Your task to perform on an android device: What's on the menu at Chipotle? Image 0: 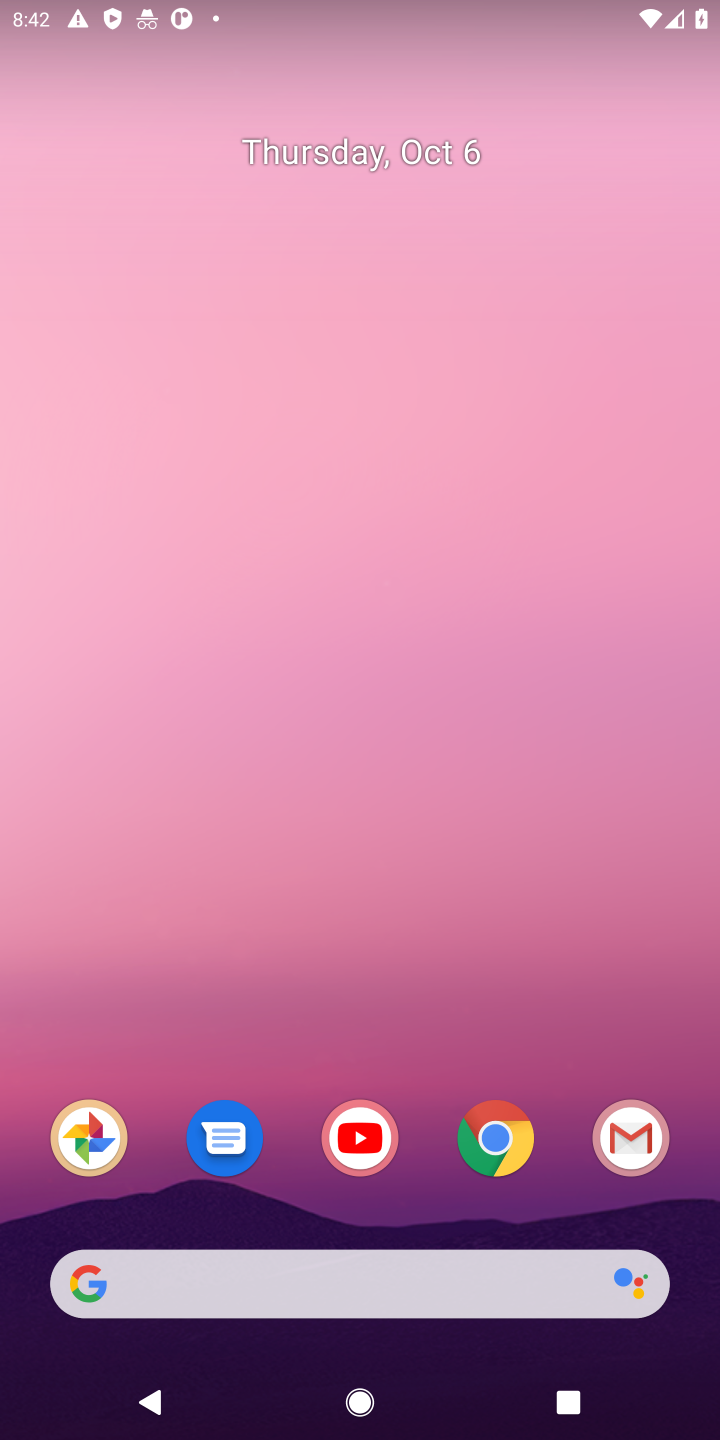
Step 0: click (489, 1136)
Your task to perform on an android device: What's on the menu at Chipotle? Image 1: 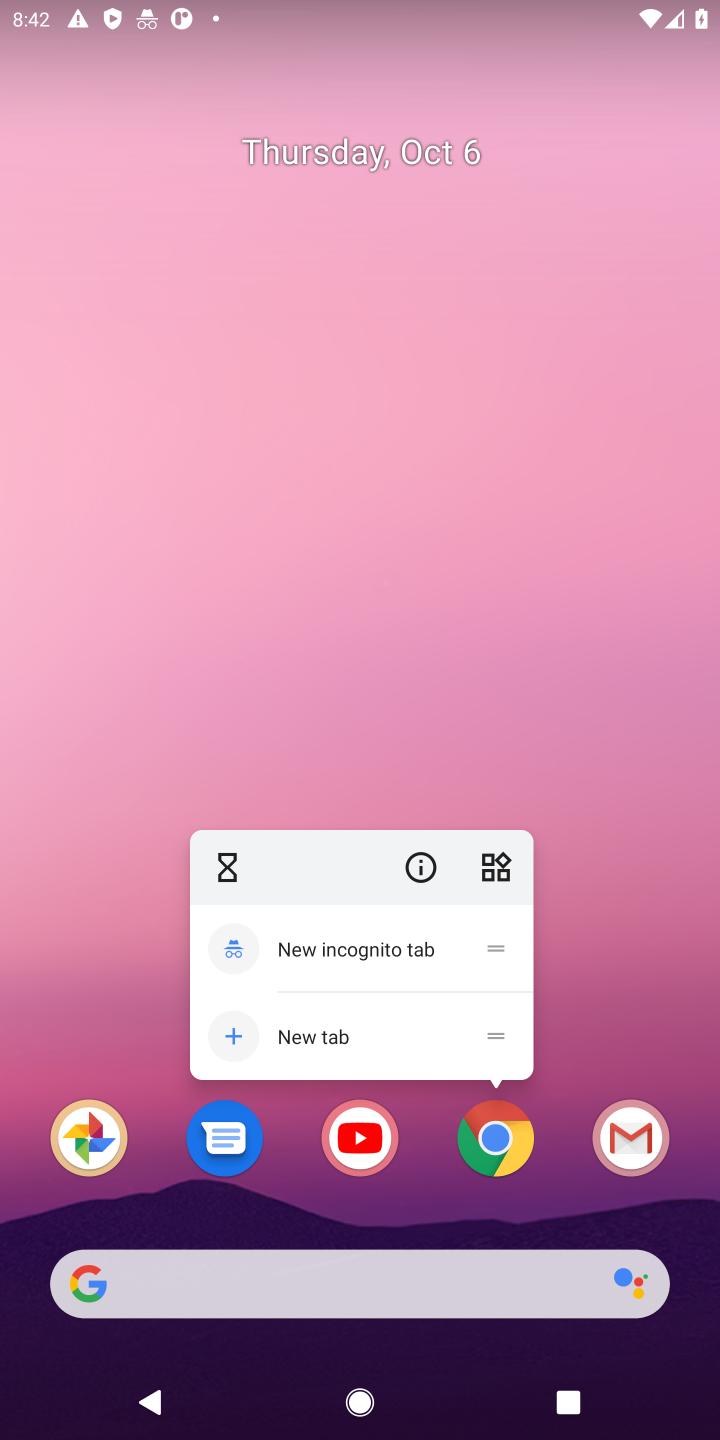
Step 1: click (489, 1137)
Your task to perform on an android device: What's on the menu at Chipotle? Image 2: 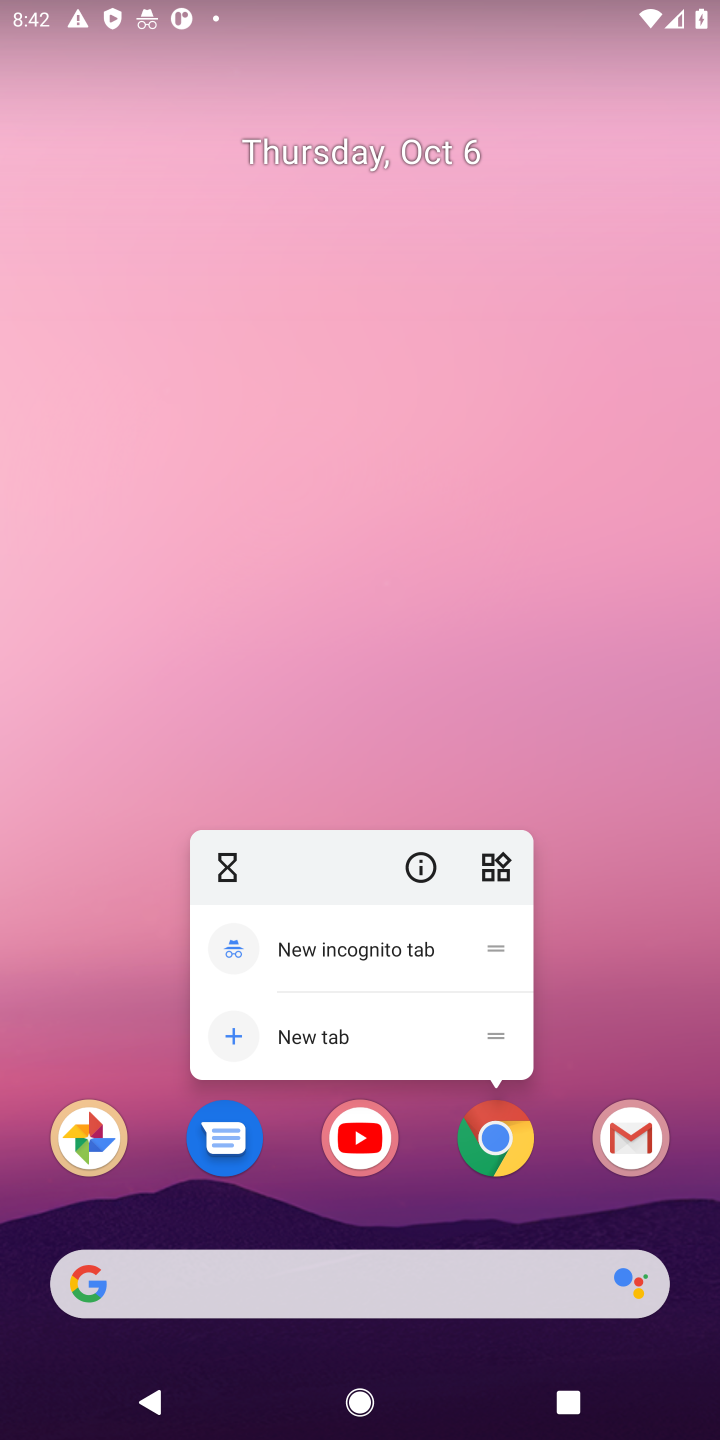
Step 2: click (502, 1124)
Your task to perform on an android device: What's on the menu at Chipotle? Image 3: 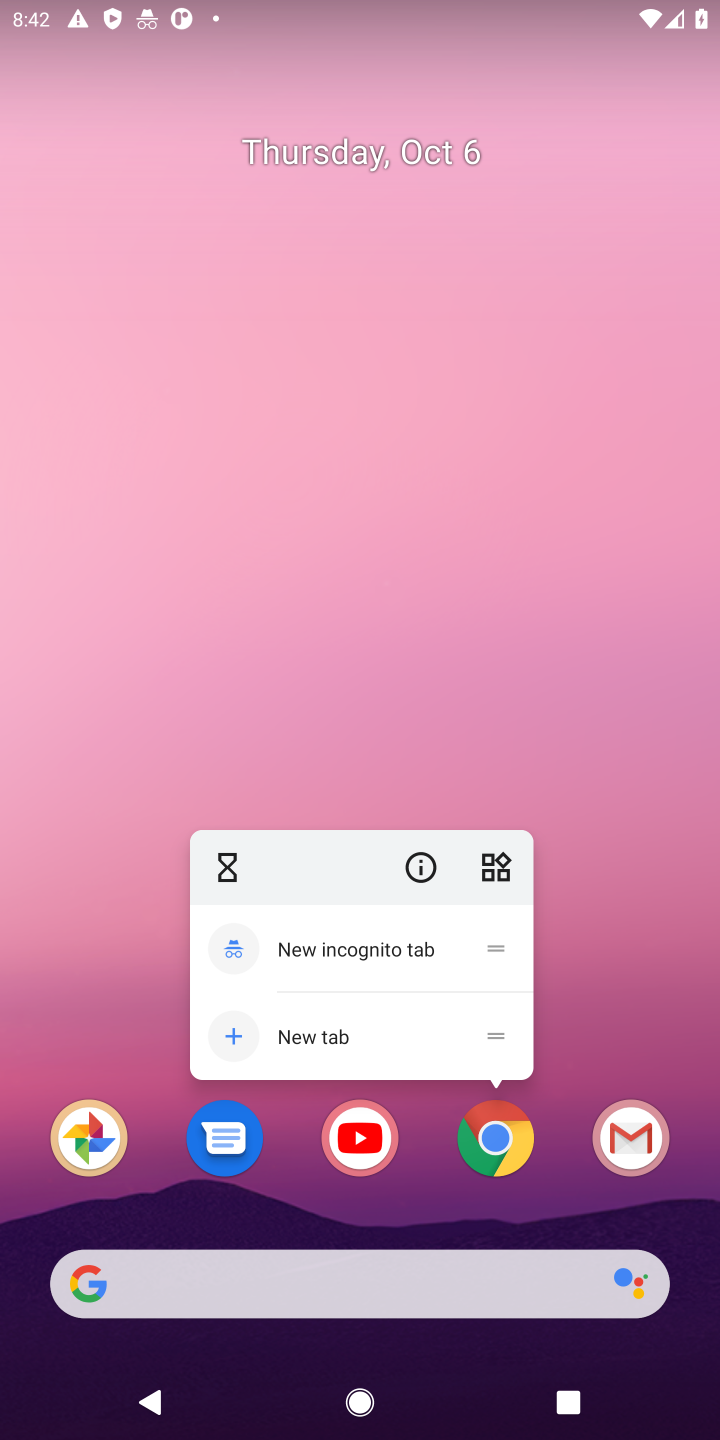
Step 3: click (502, 1124)
Your task to perform on an android device: What's on the menu at Chipotle? Image 4: 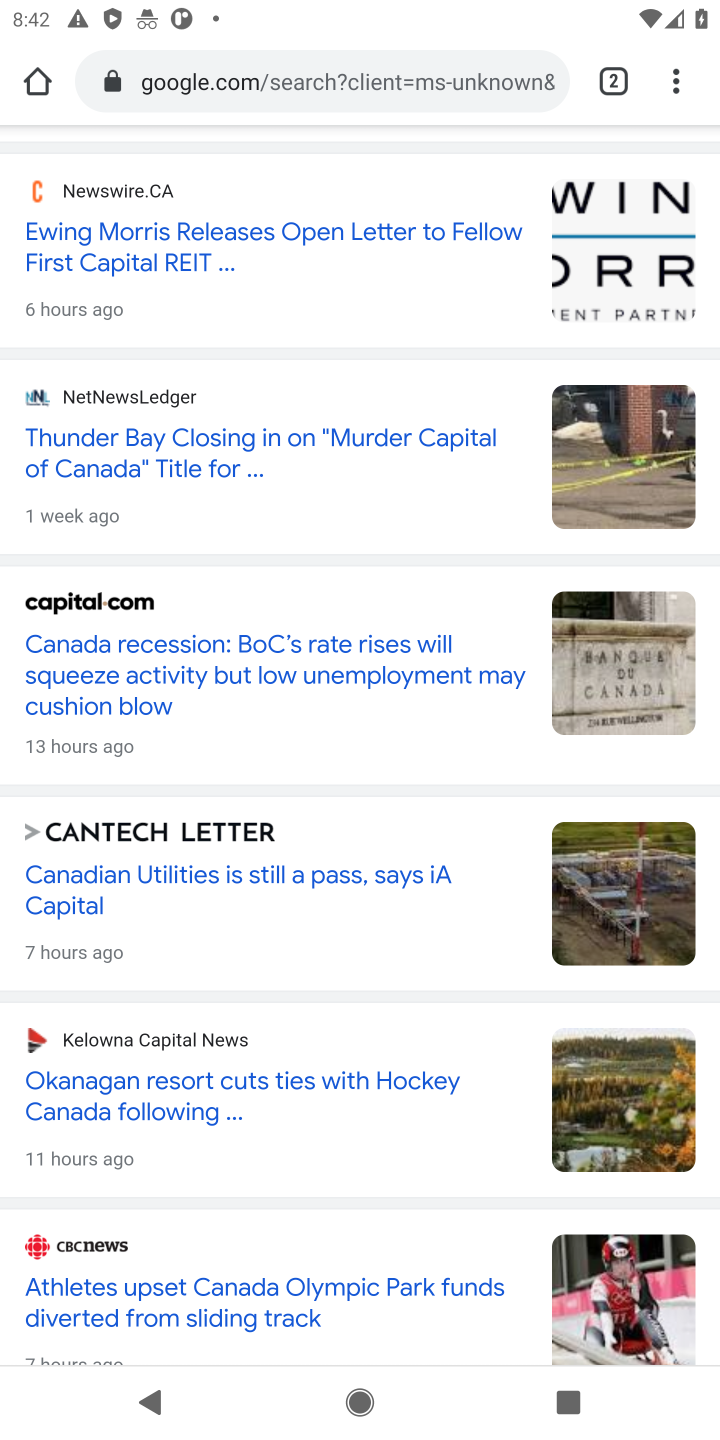
Step 4: click (528, 77)
Your task to perform on an android device: What's on the menu at Chipotle? Image 5: 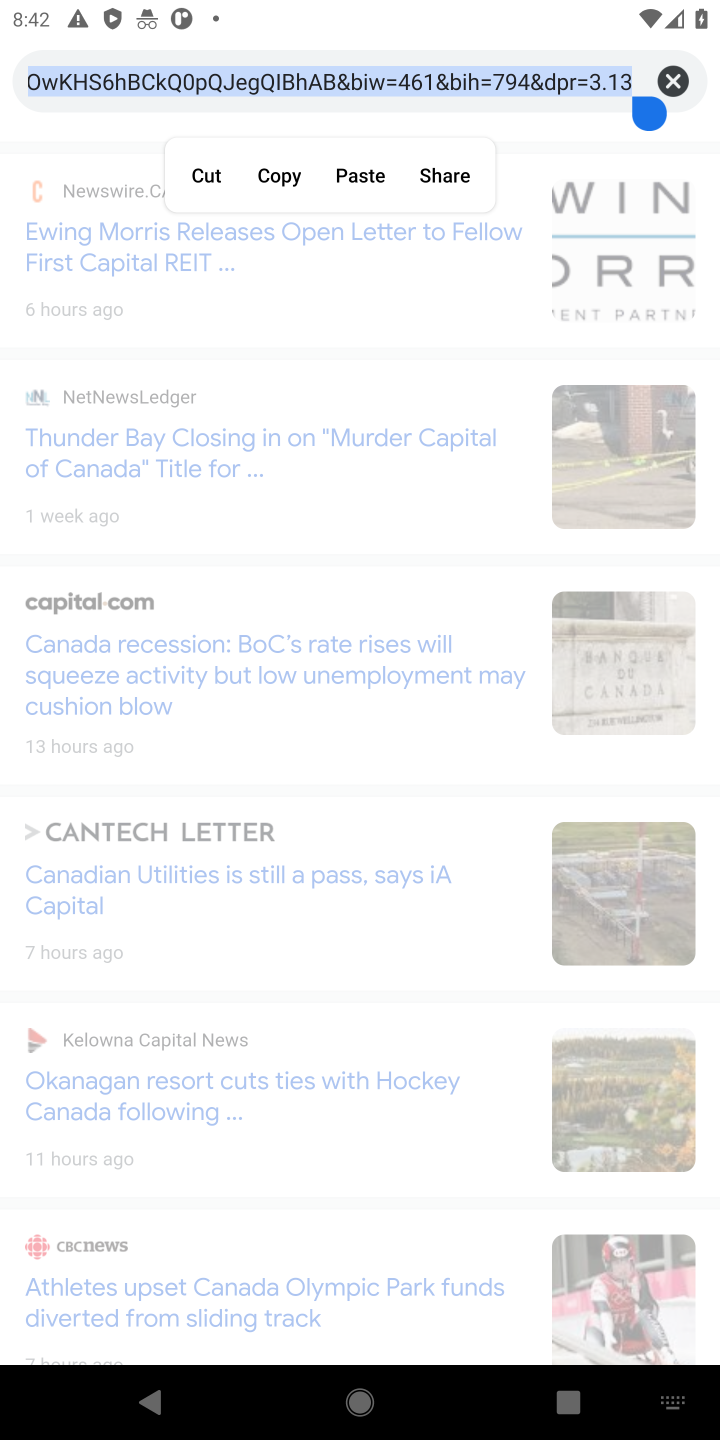
Step 5: click (666, 81)
Your task to perform on an android device: What's on the menu at Chipotle? Image 6: 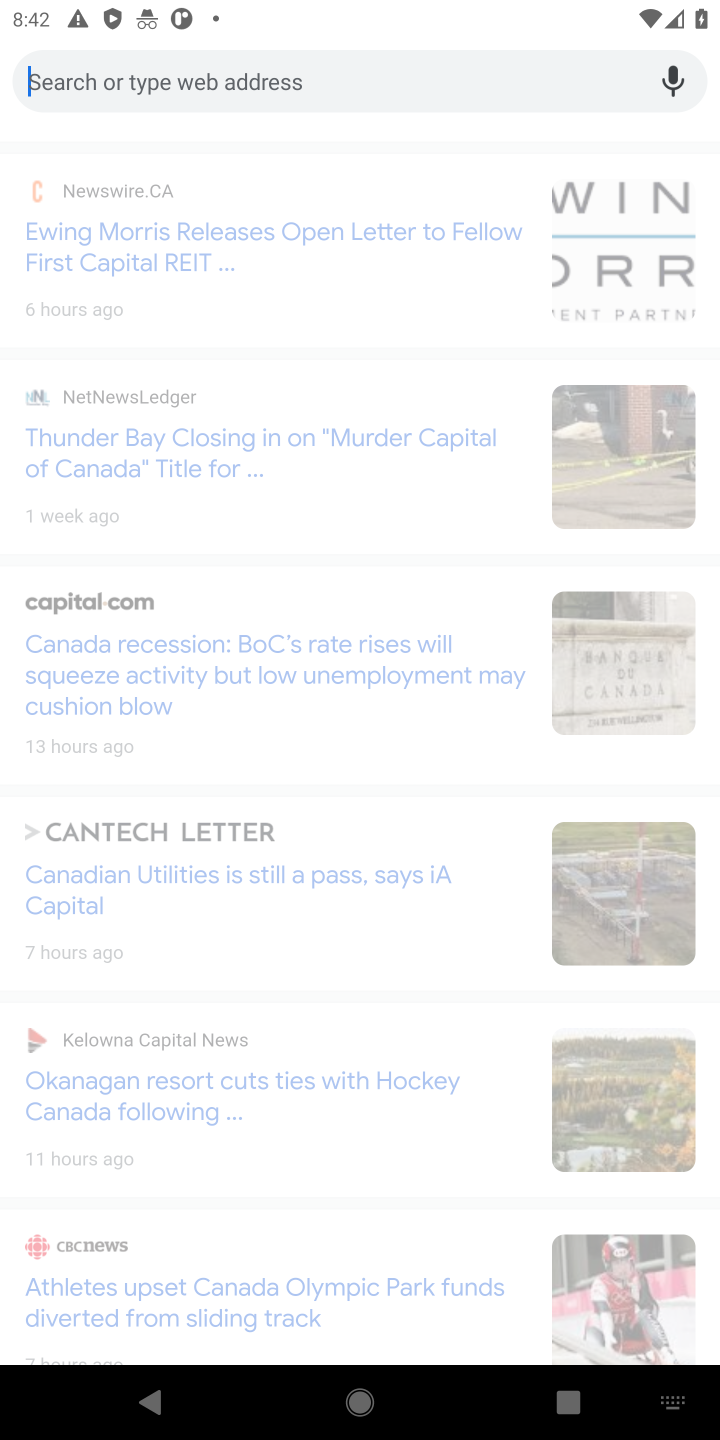
Step 6: type " menu at Chipotle"
Your task to perform on an android device: What's on the menu at Chipotle? Image 7: 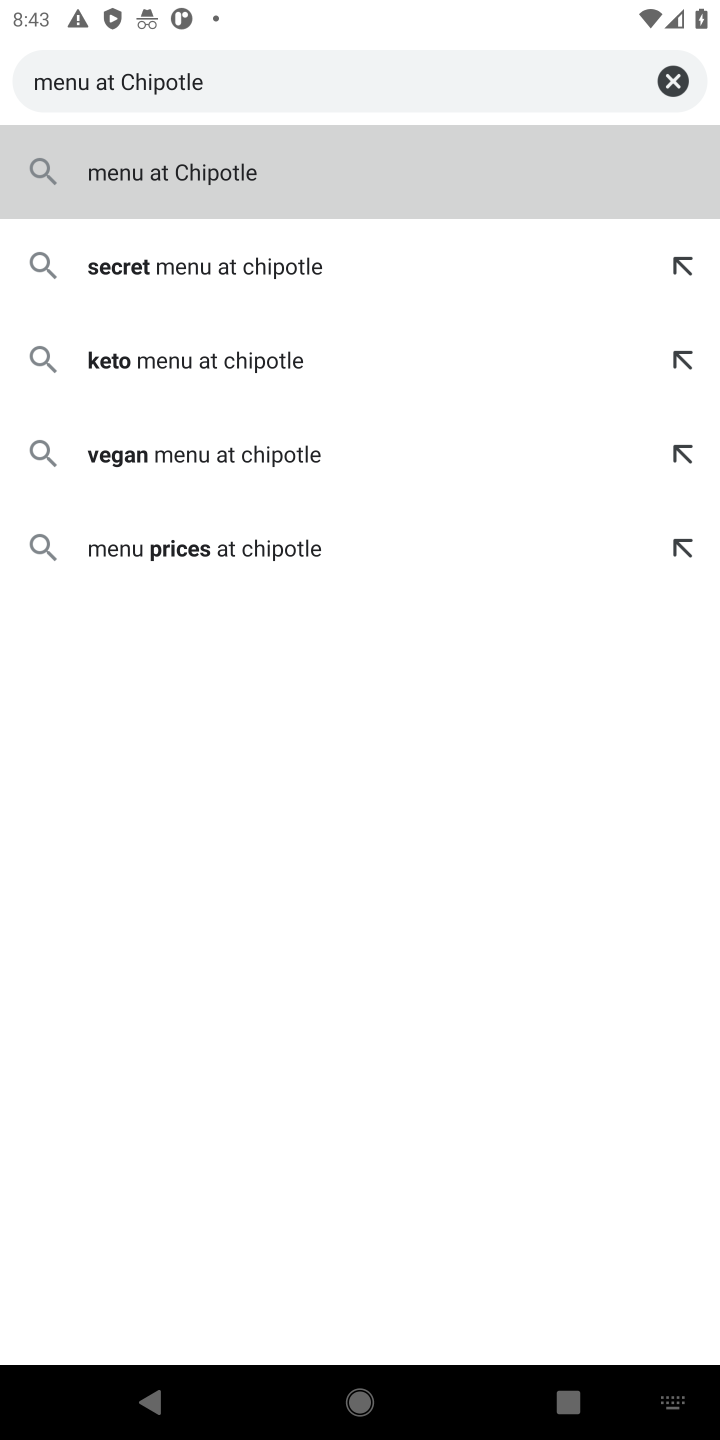
Step 7: click (196, 161)
Your task to perform on an android device: What's on the menu at Chipotle? Image 8: 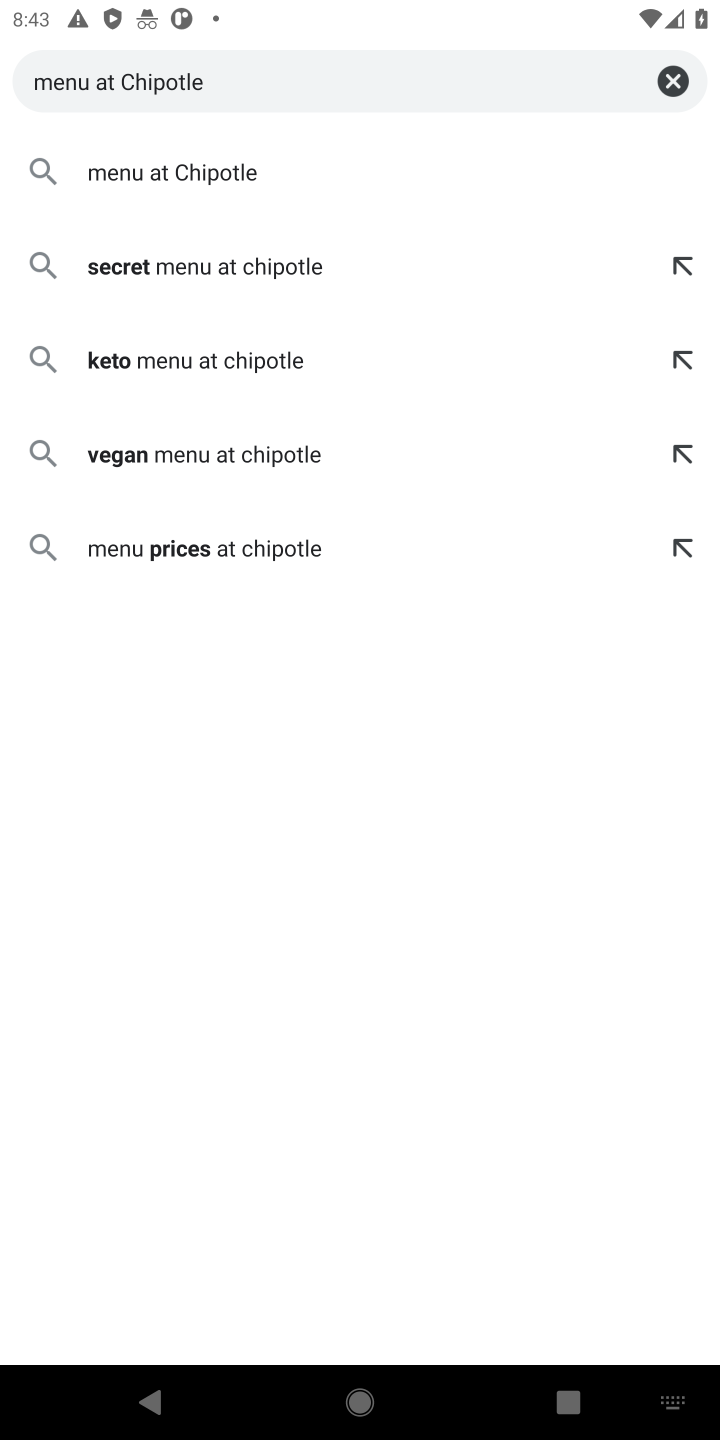
Step 8: click (193, 170)
Your task to perform on an android device: What's on the menu at Chipotle? Image 9: 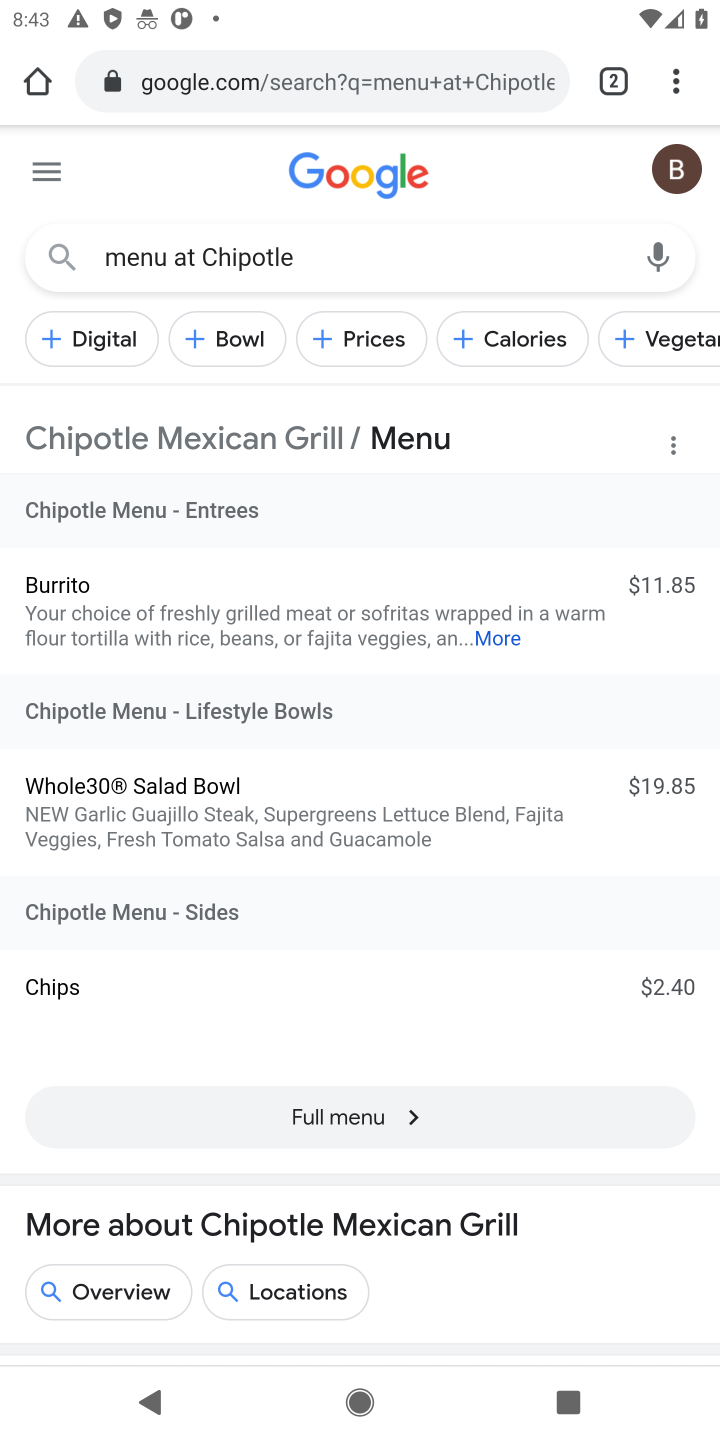
Step 9: drag from (369, 973) to (589, 470)
Your task to perform on an android device: What's on the menu at Chipotle? Image 10: 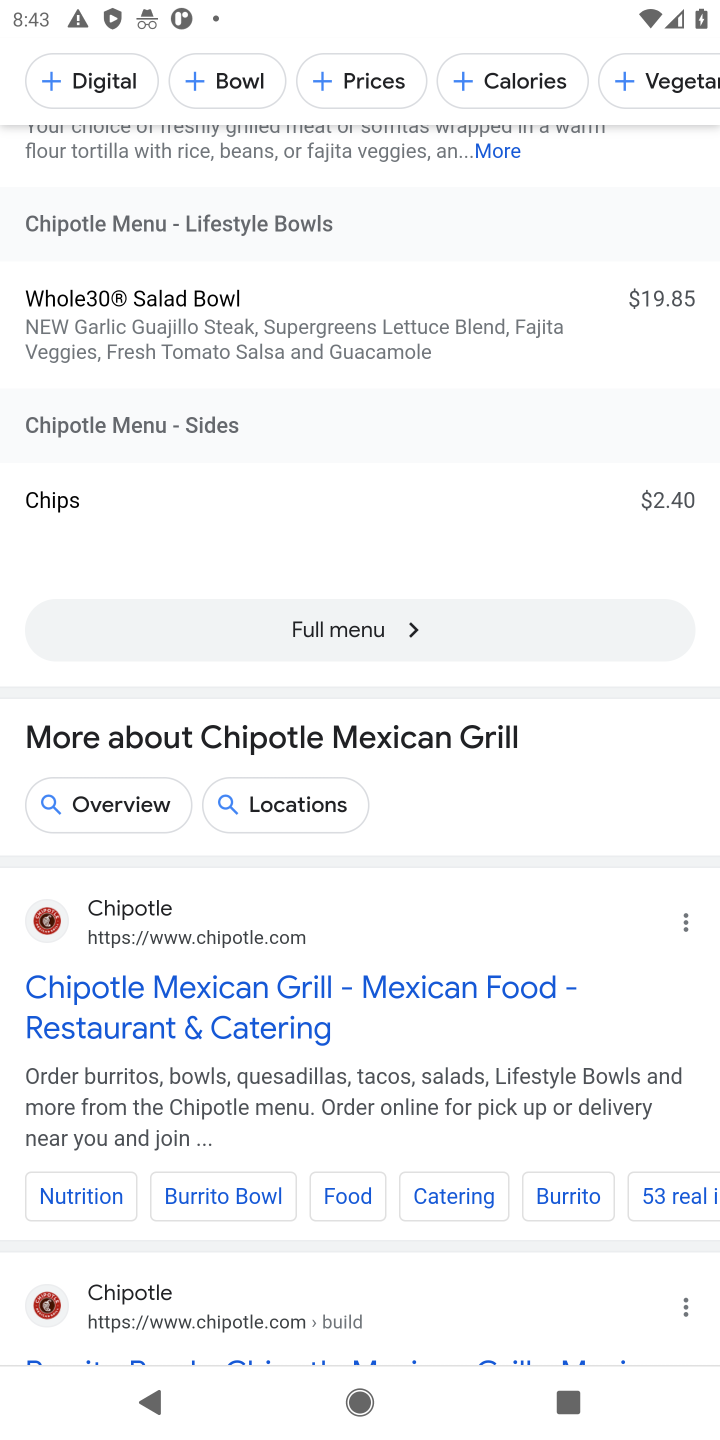
Step 10: click (364, 626)
Your task to perform on an android device: What's on the menu at Chipotle? Image 11: 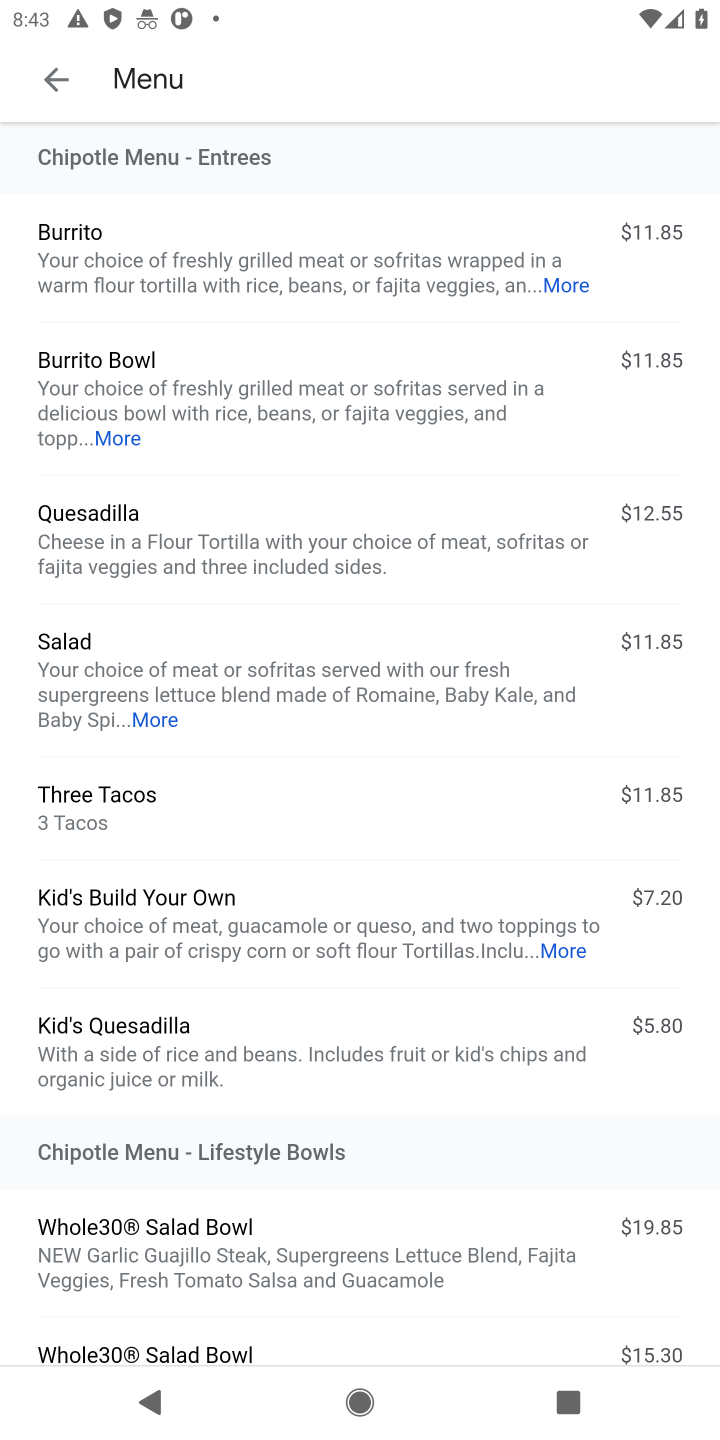
Step 11: task complete